Your task to perform on an android device: change notifications settings Image 0: 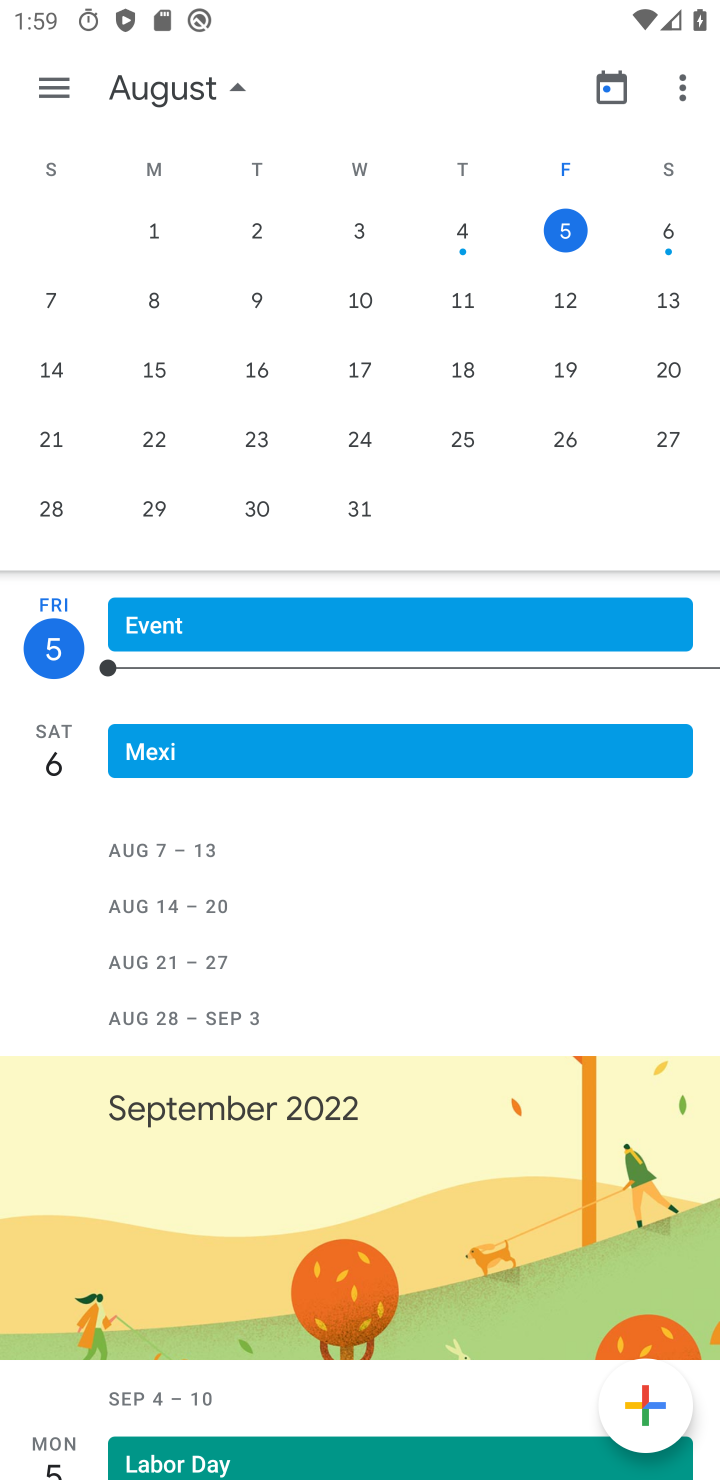
Step 0: click (45, 91)
Your task to perform on an android device: change notifications settings Image 1: 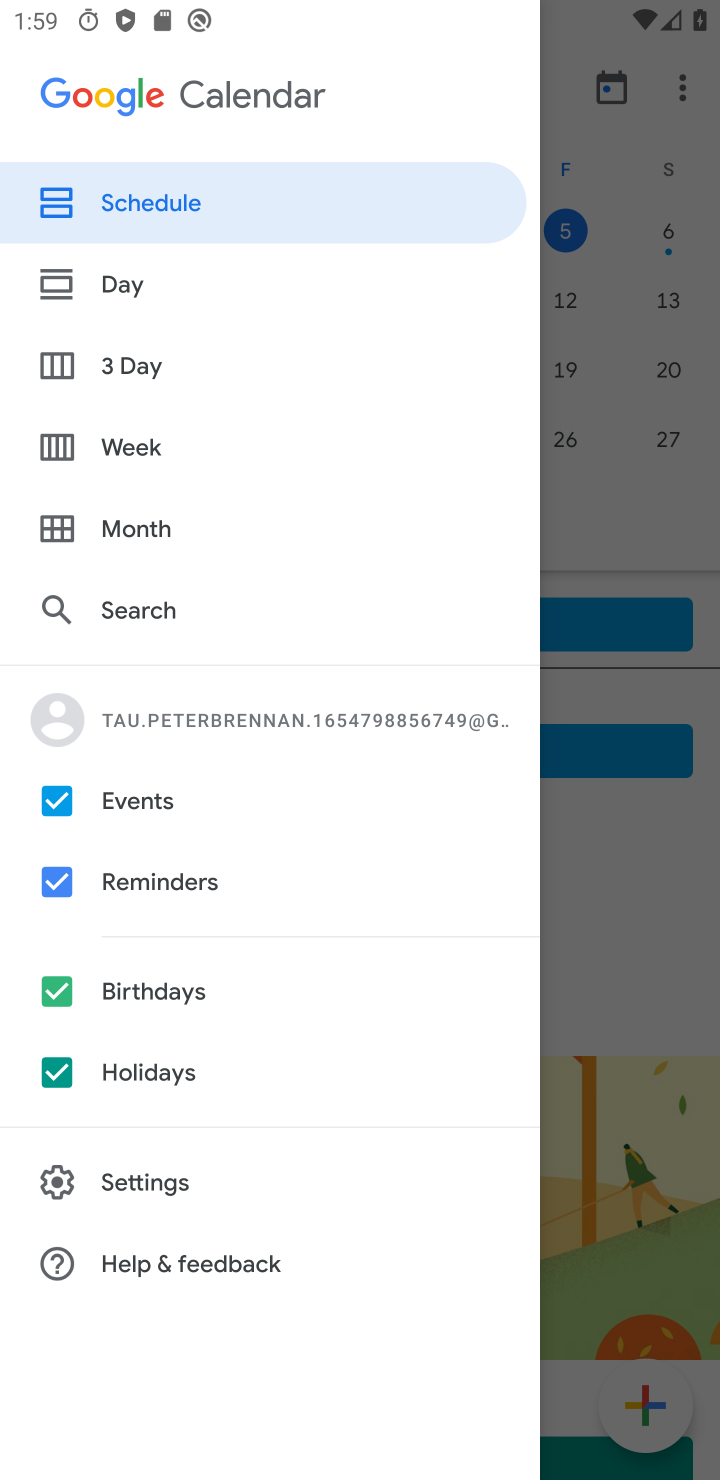
Step 1: click (136, 1165)
Your task to perform on an android device: change notifications settings Image 2: 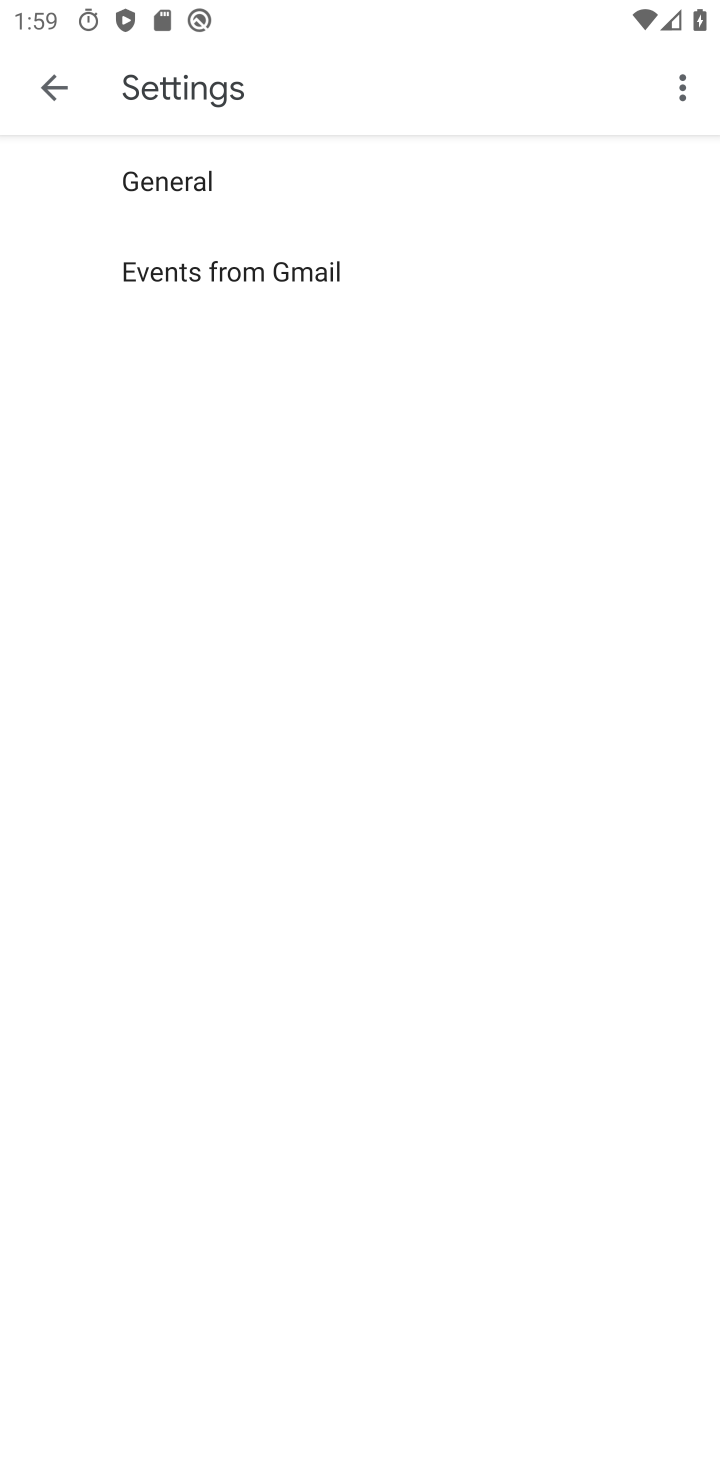
Step 2: press home button
Your task to perform on an android device: change notifications settings Image 3: 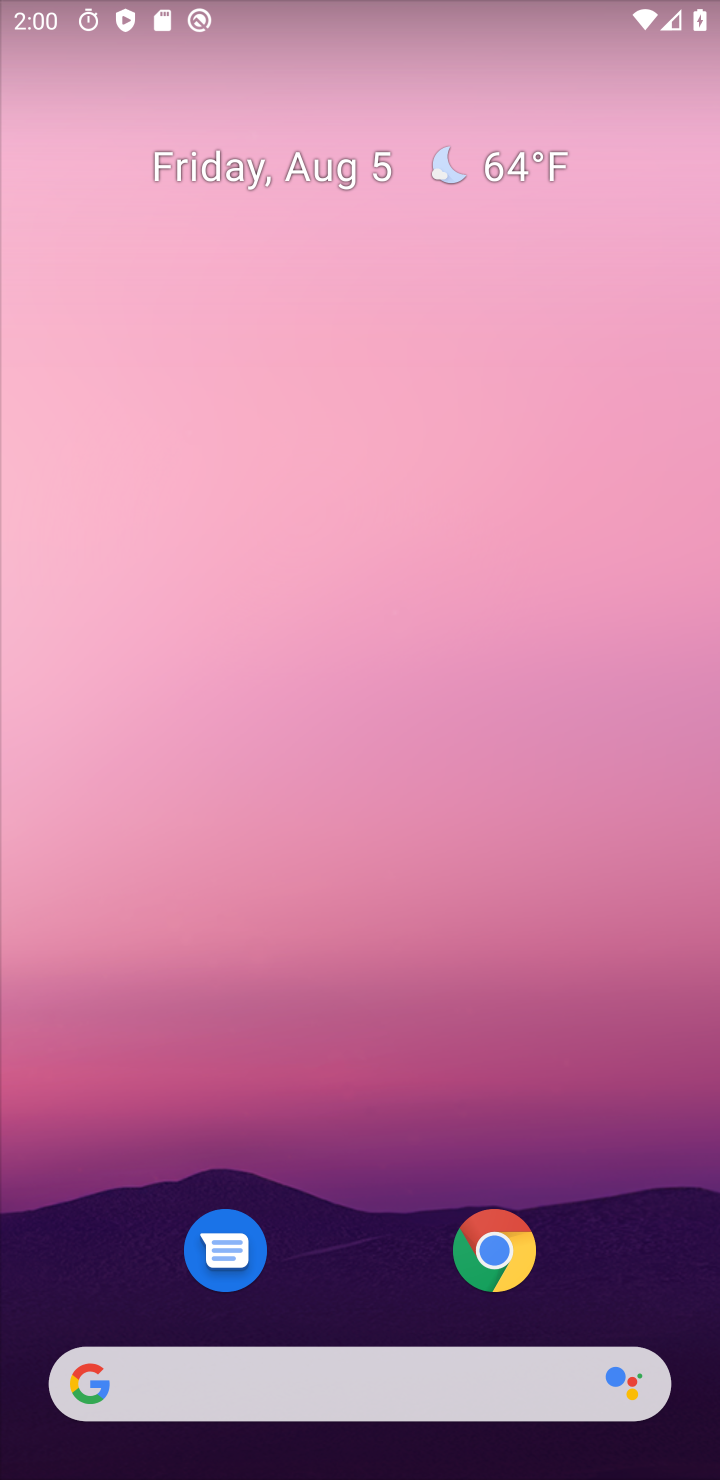
Step 3: drag from (436, 562) to (684, 986)
Your task to perform on an android device: change notifications settings Image 4: 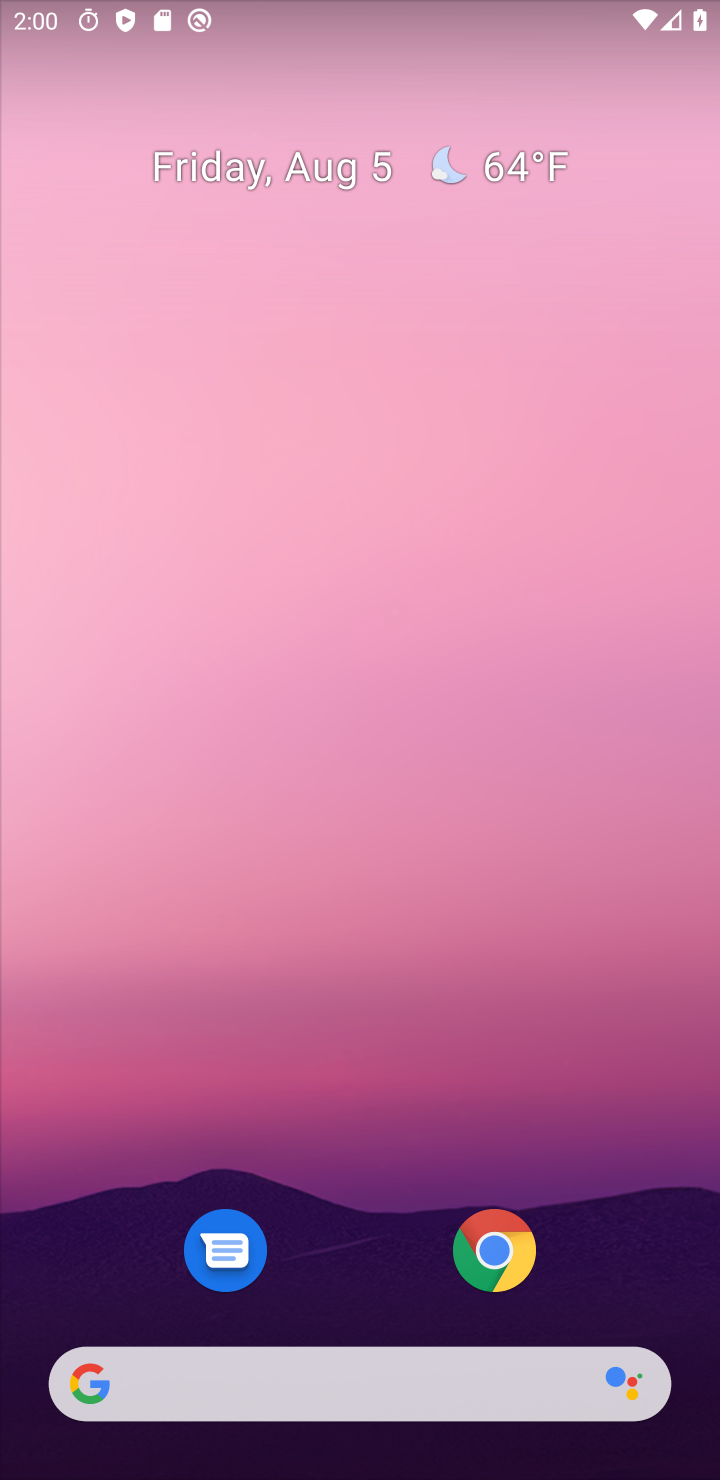
Step 4: drag from (337, 1107) to (442, 410)
Your task to perform on an android device: change notifications settings Image 5: 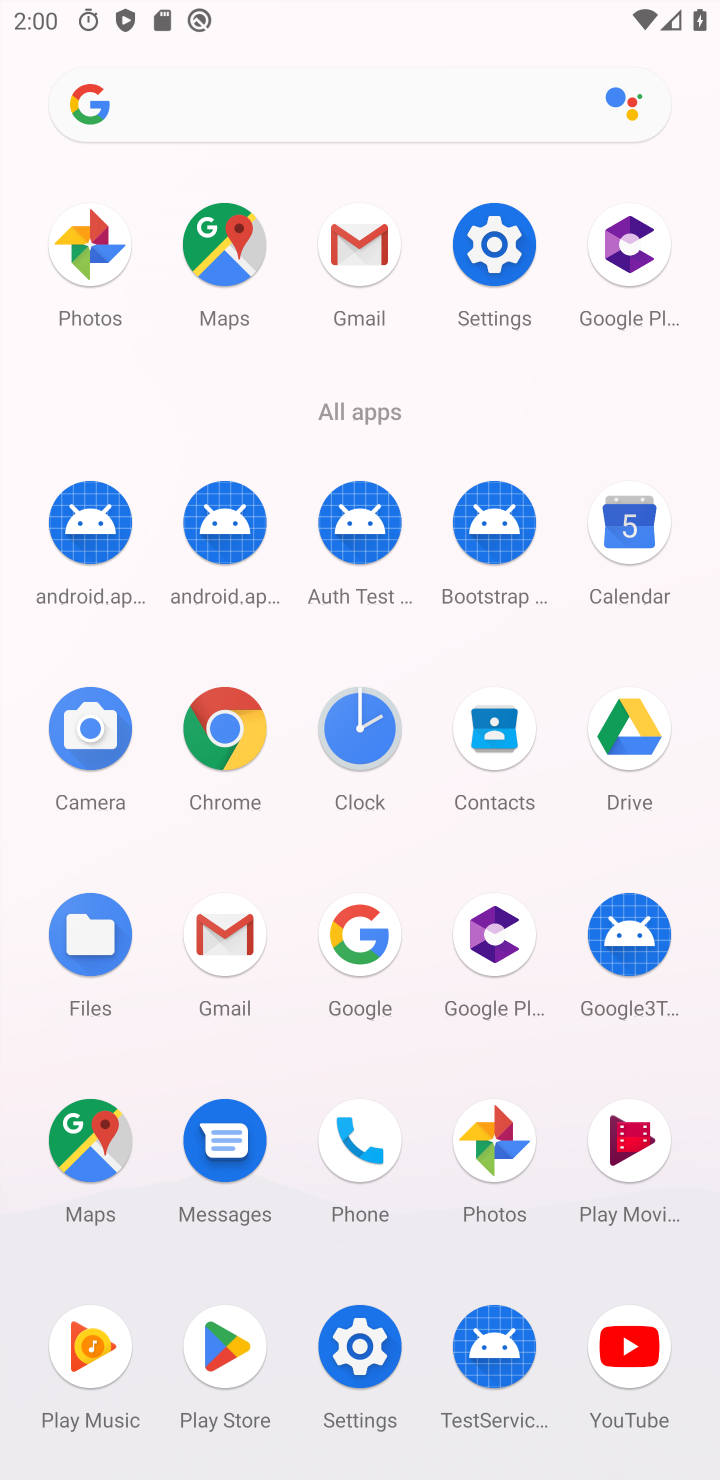
Step 5: click (507, 217)
Your task to perform on an android device: change notifications settings Image 6: 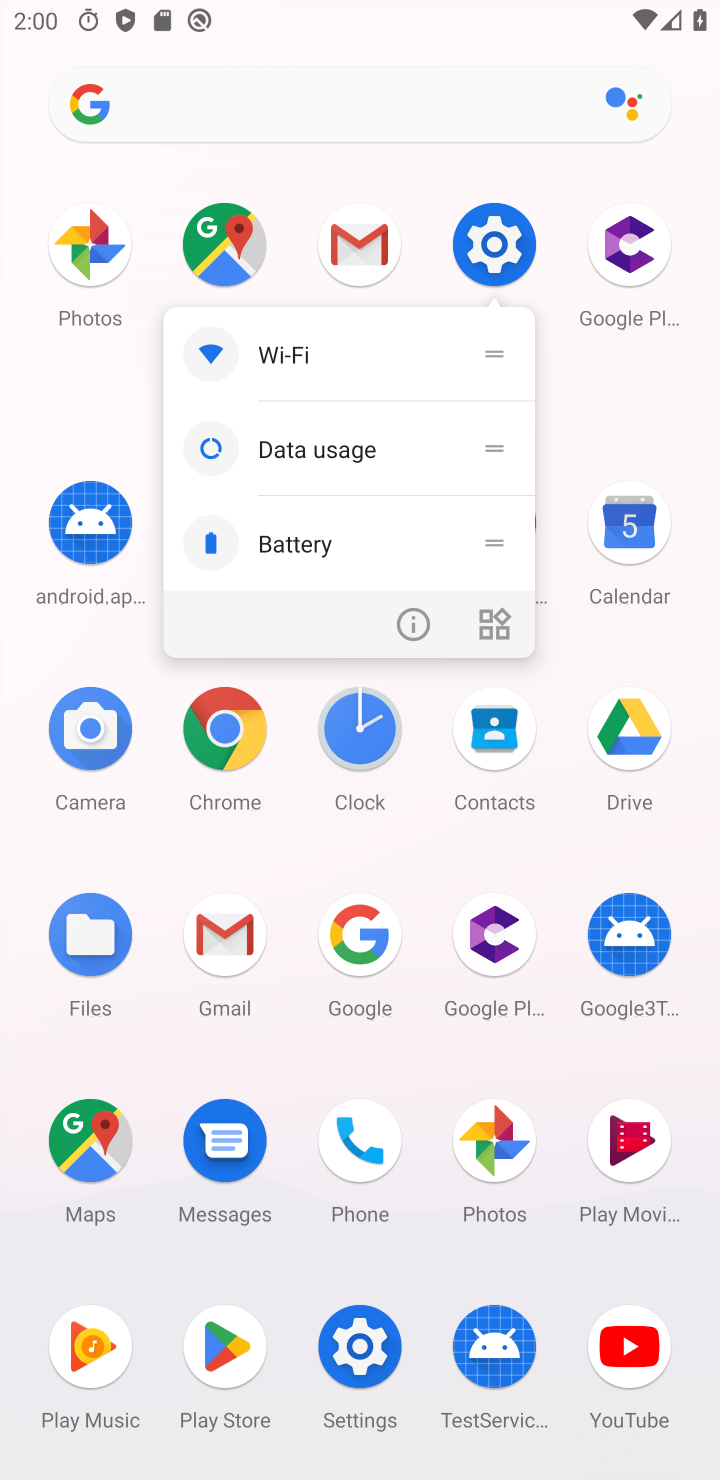
Step 6: click (409, 610)
Your task to perform on an android device: change notifications settings Image 7: 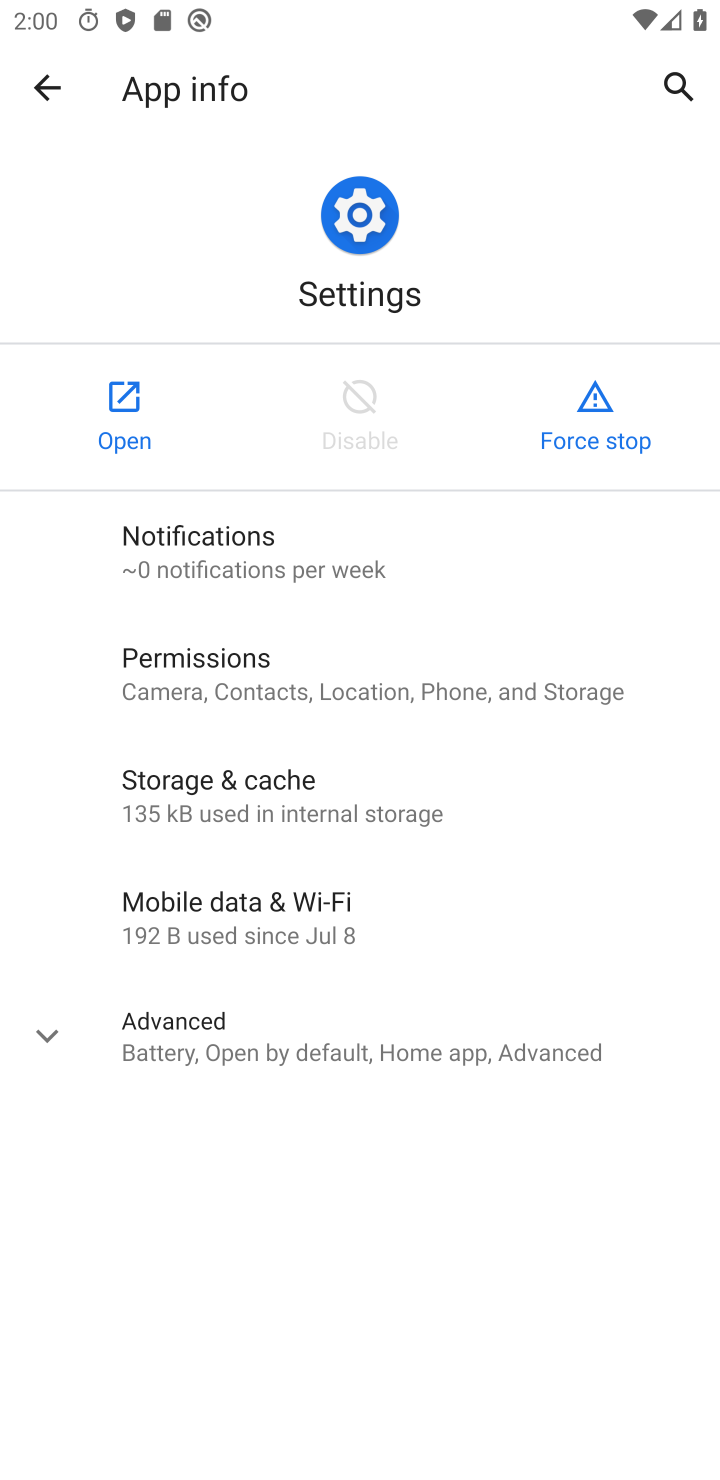
Step 7: click (117, 408)
Your task to perform on an android device: change notifications settings Image 8: 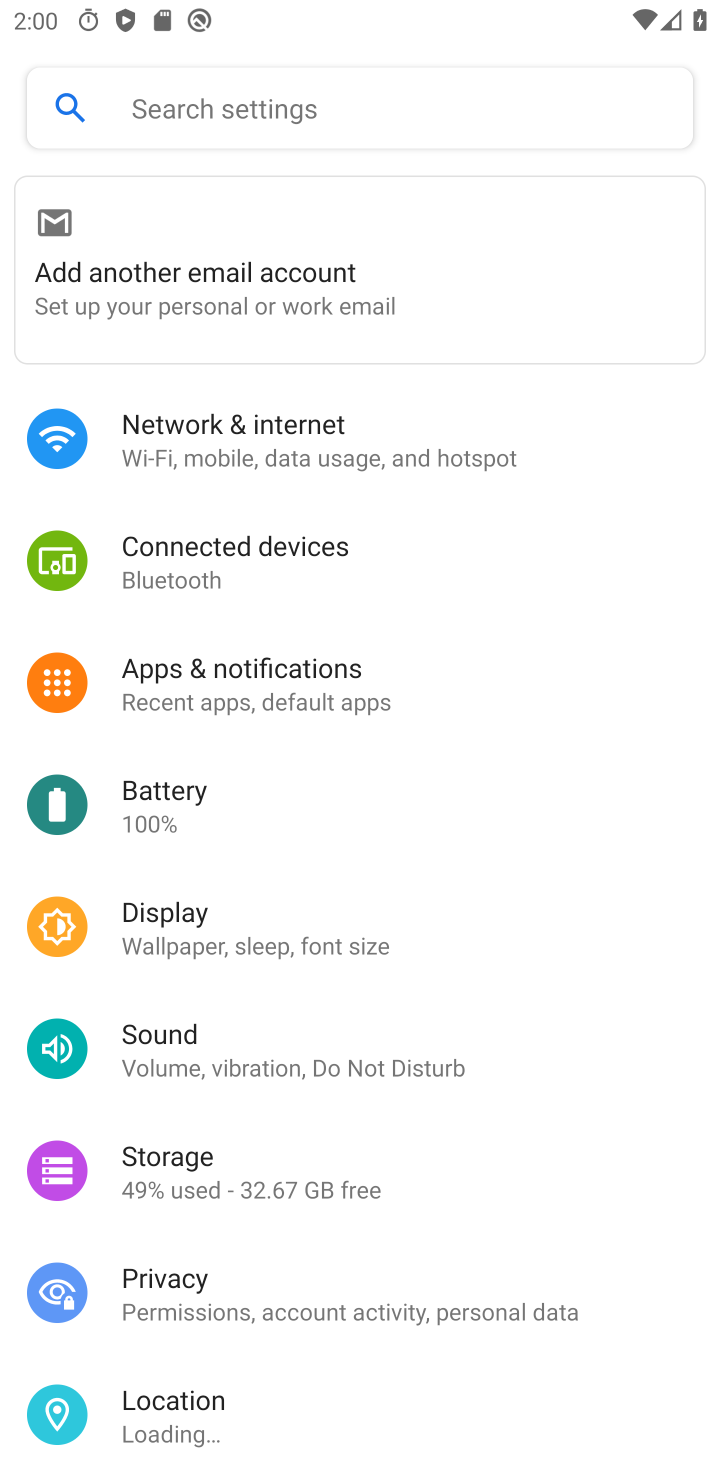
Step 8: drag from (270, 484) to (467, 76)
Your task to perform on an android device: change notifications settings Image 9: 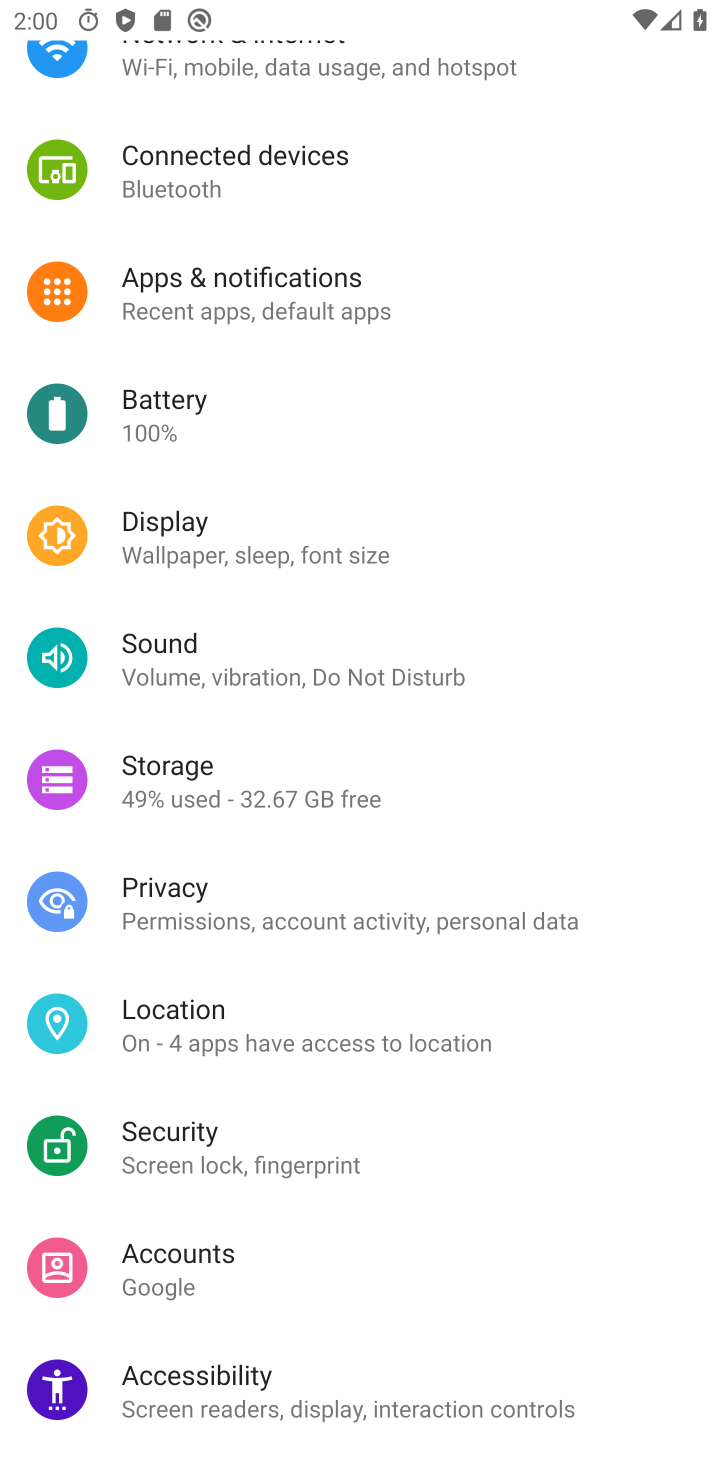
Step 9: click (262, 305)
Your task to perform on an android device: change notifications settings Image 10: 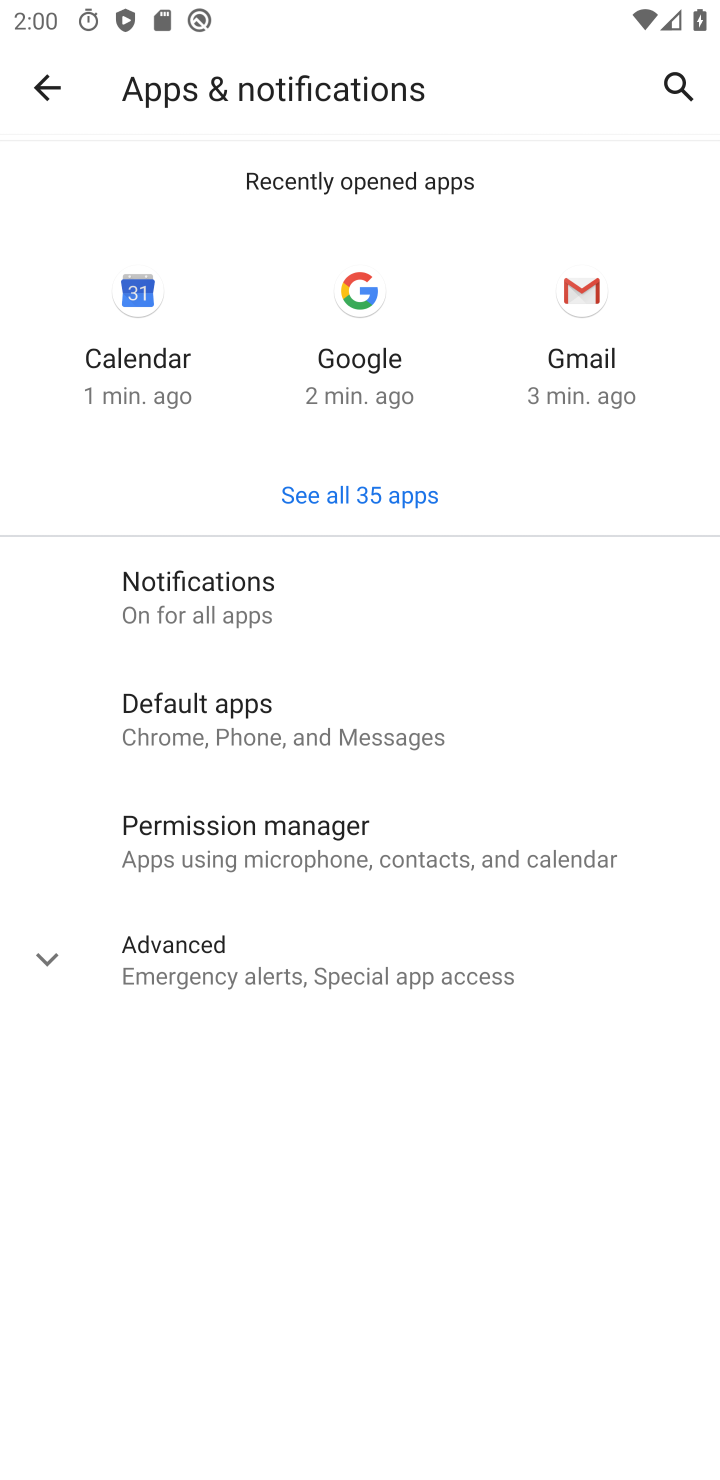
Step 10: click (236, 604)
Your task to perform on an android device: change notifications settings Image 11: 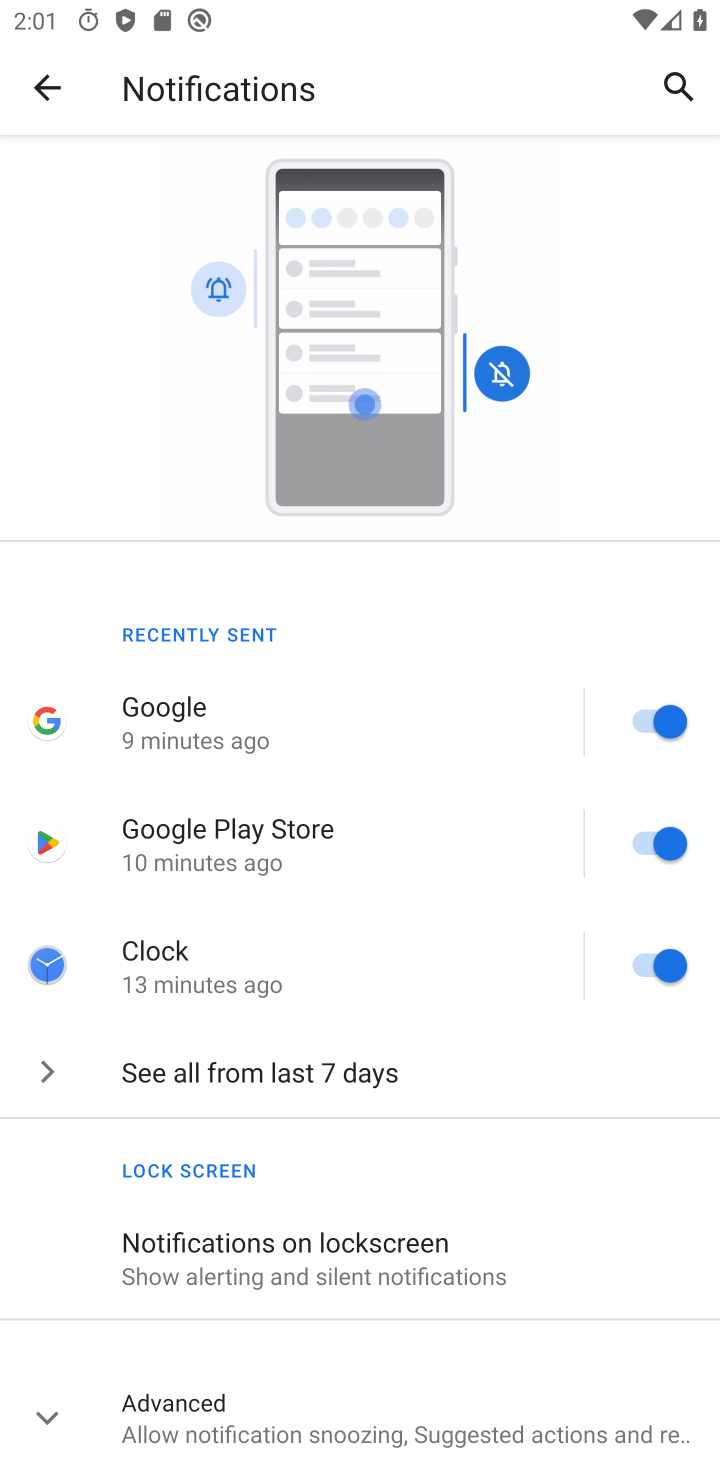
Step 11: task complete